Your task to perform on an android device: Open calendar and show me the first week of next month Image 0: 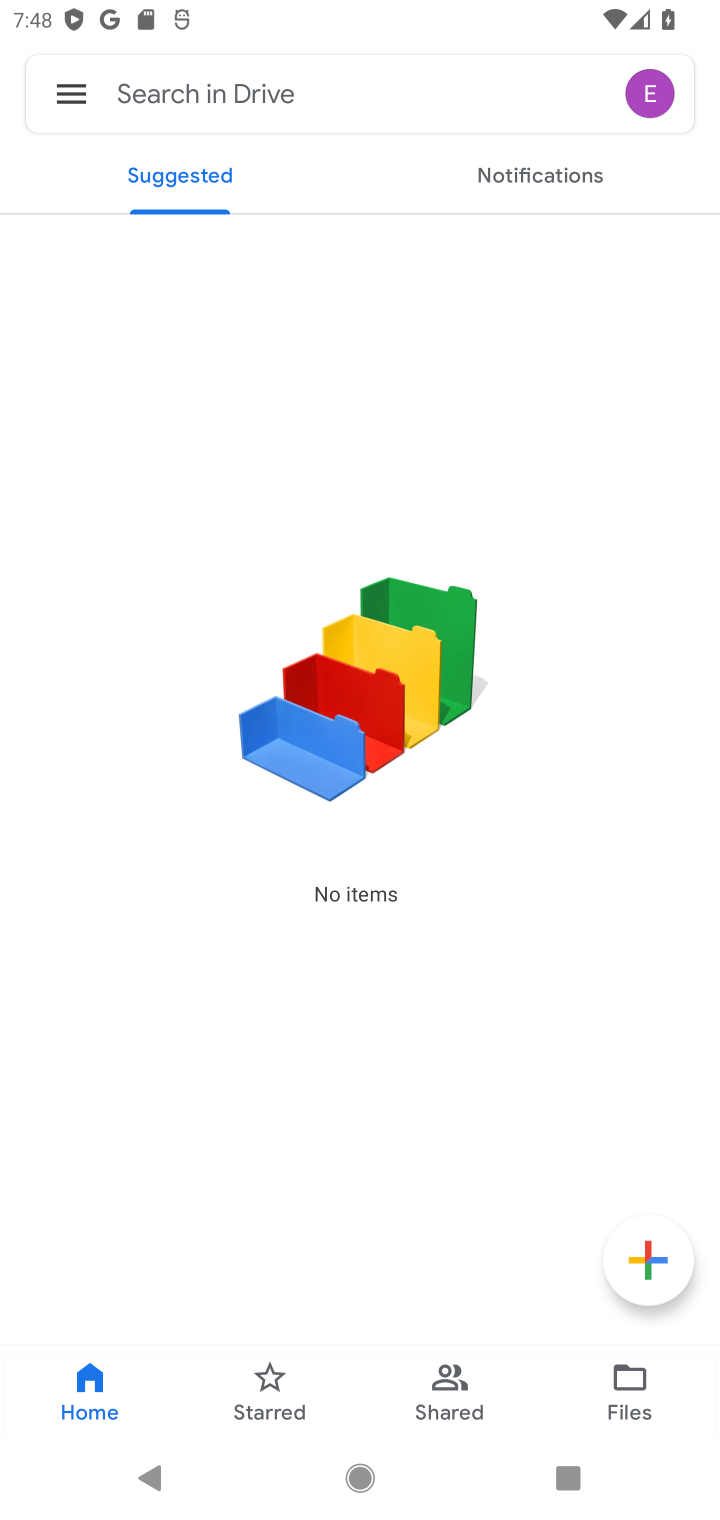
Step 0: press home button
Your task to perform on an android device: Open calendar and show me the first week of next month Image 1: 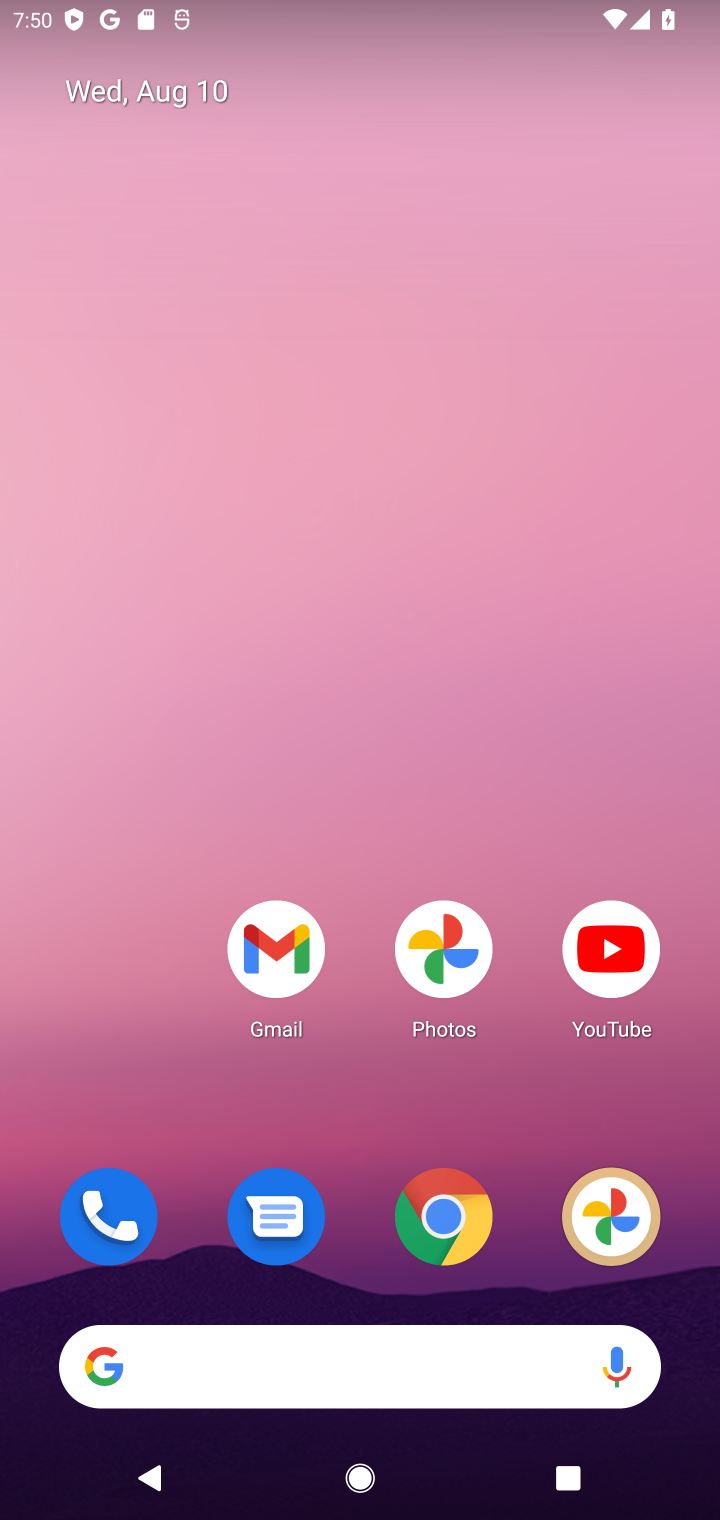
Step 1: drag from (236, 613) to (490, 101)
Your task to perform on an android device: Open calendar and show me the first week of next month Image 2: 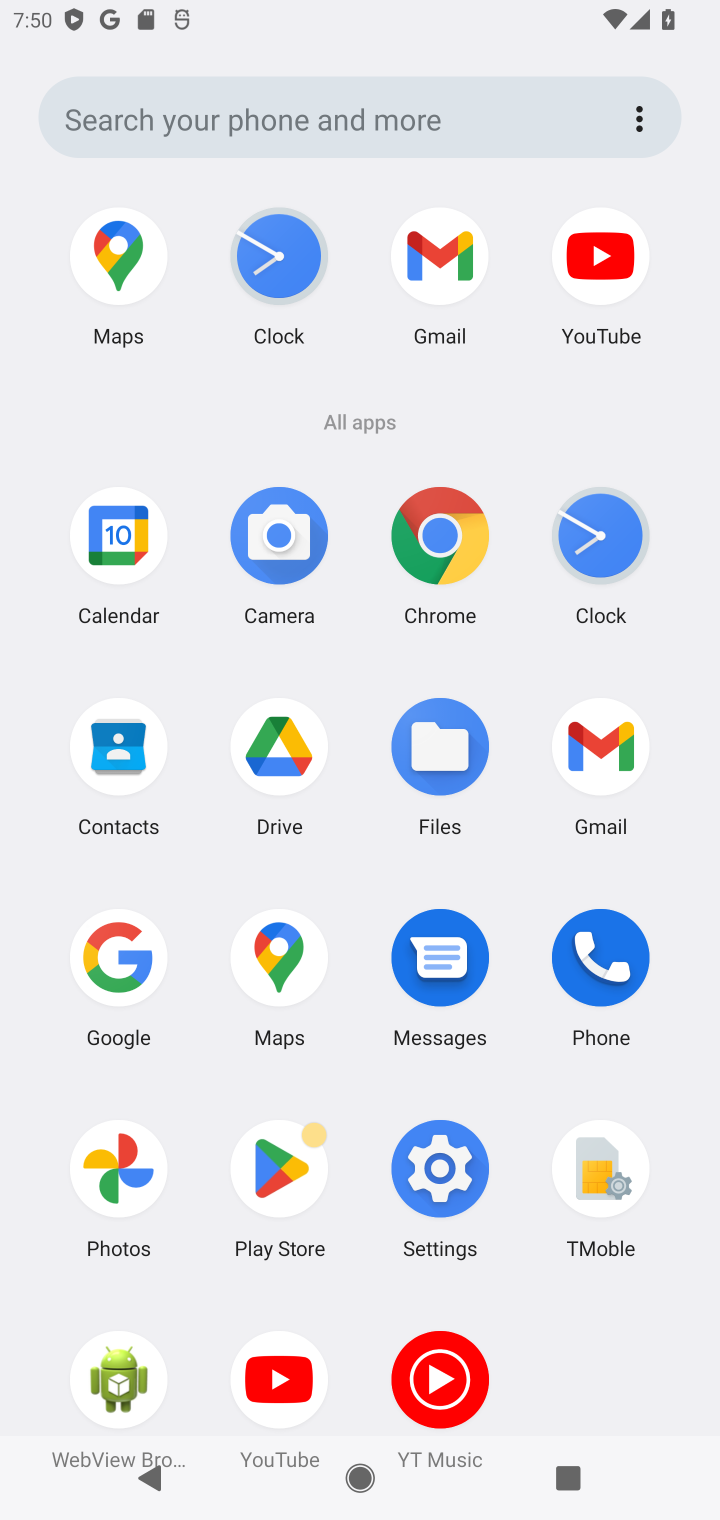
Step 2: click (125, 534)
Your task to perform on an android device: Open calendar and show me the first week of next month Image 3: 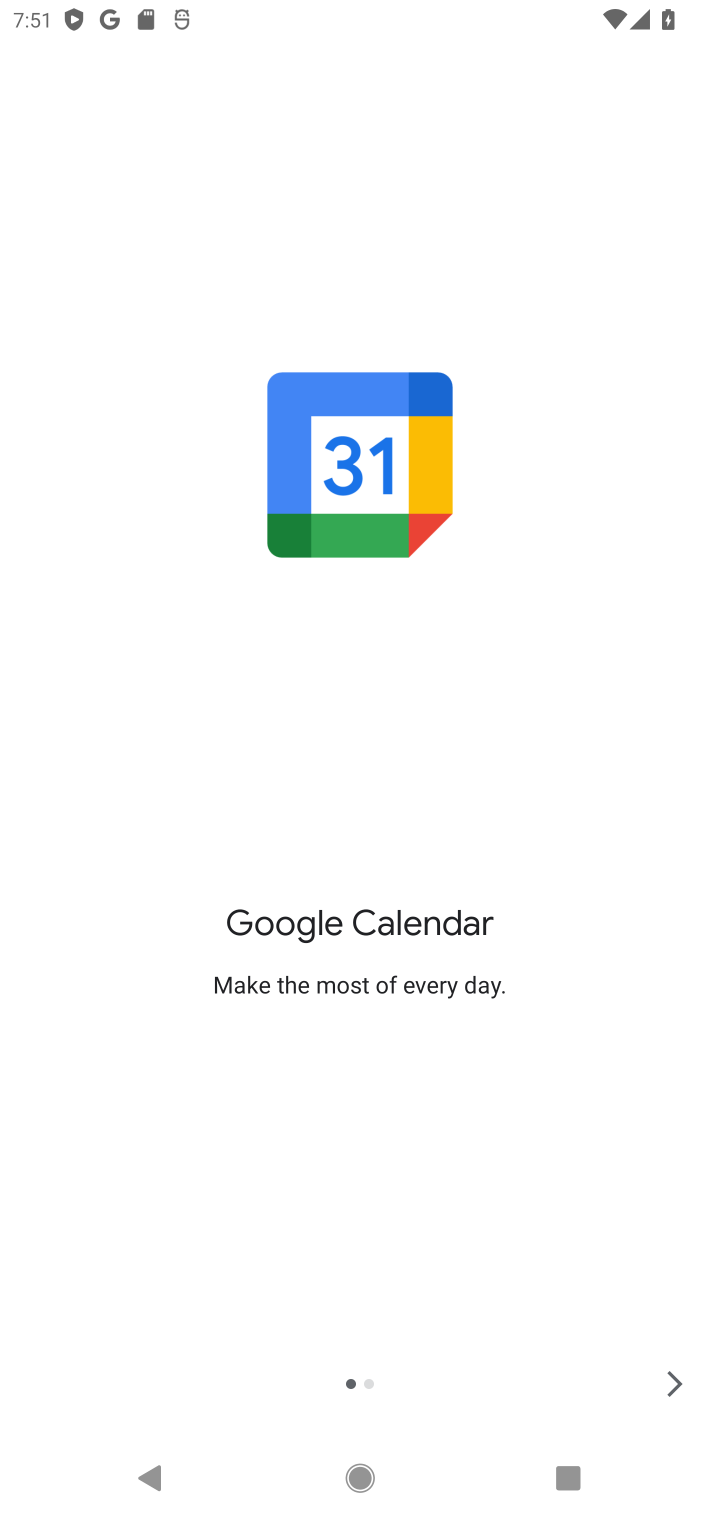
Step 3: click (679, 1396)
Your task to perform on an android device: Open calendar and show me the first week of next month Image 4: 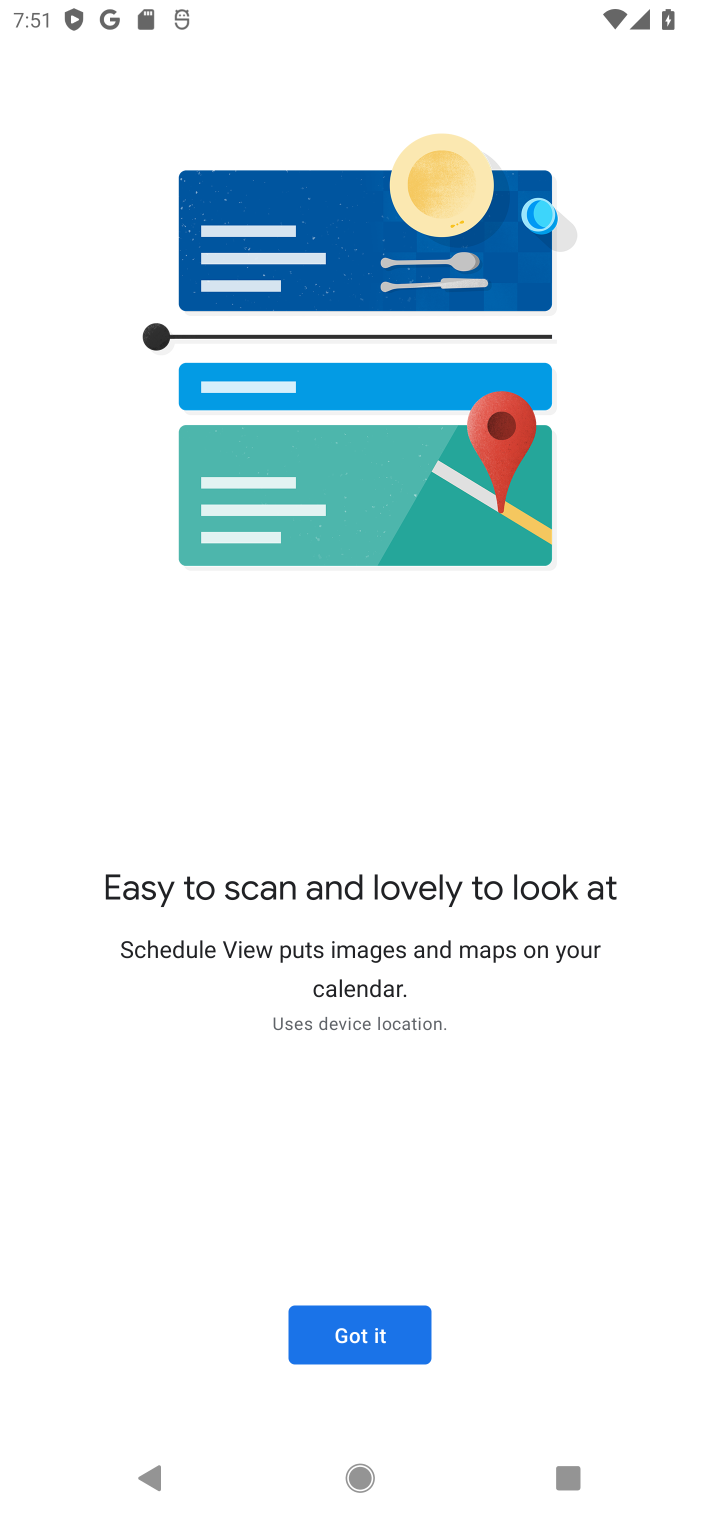
Step 4: click (368, 1335)
Your task to perform on an android device: Open calendar and show me the first week of next month Image 5: 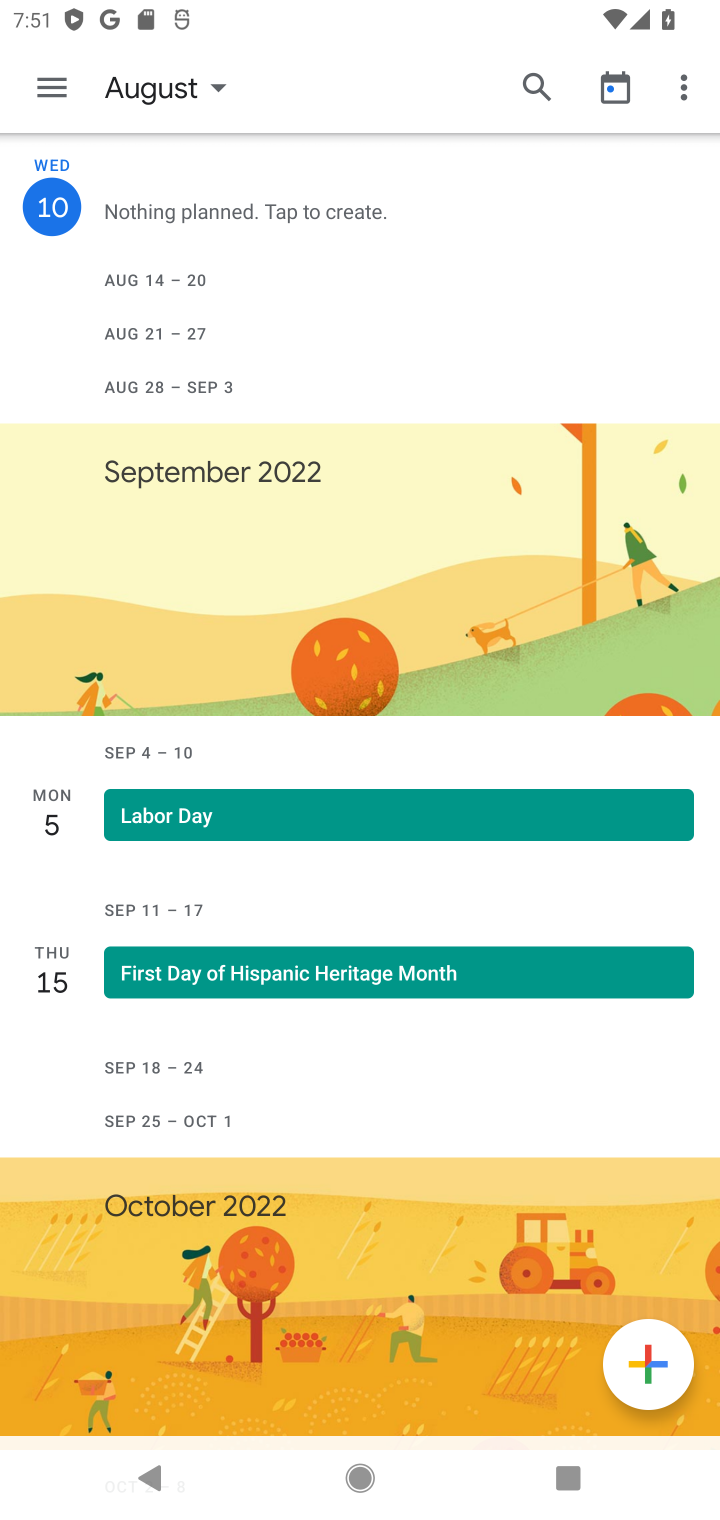
Step 5: click (189, 74)
Your task to perform on an android device: Open calendar and show me the first week of next month Image 6: 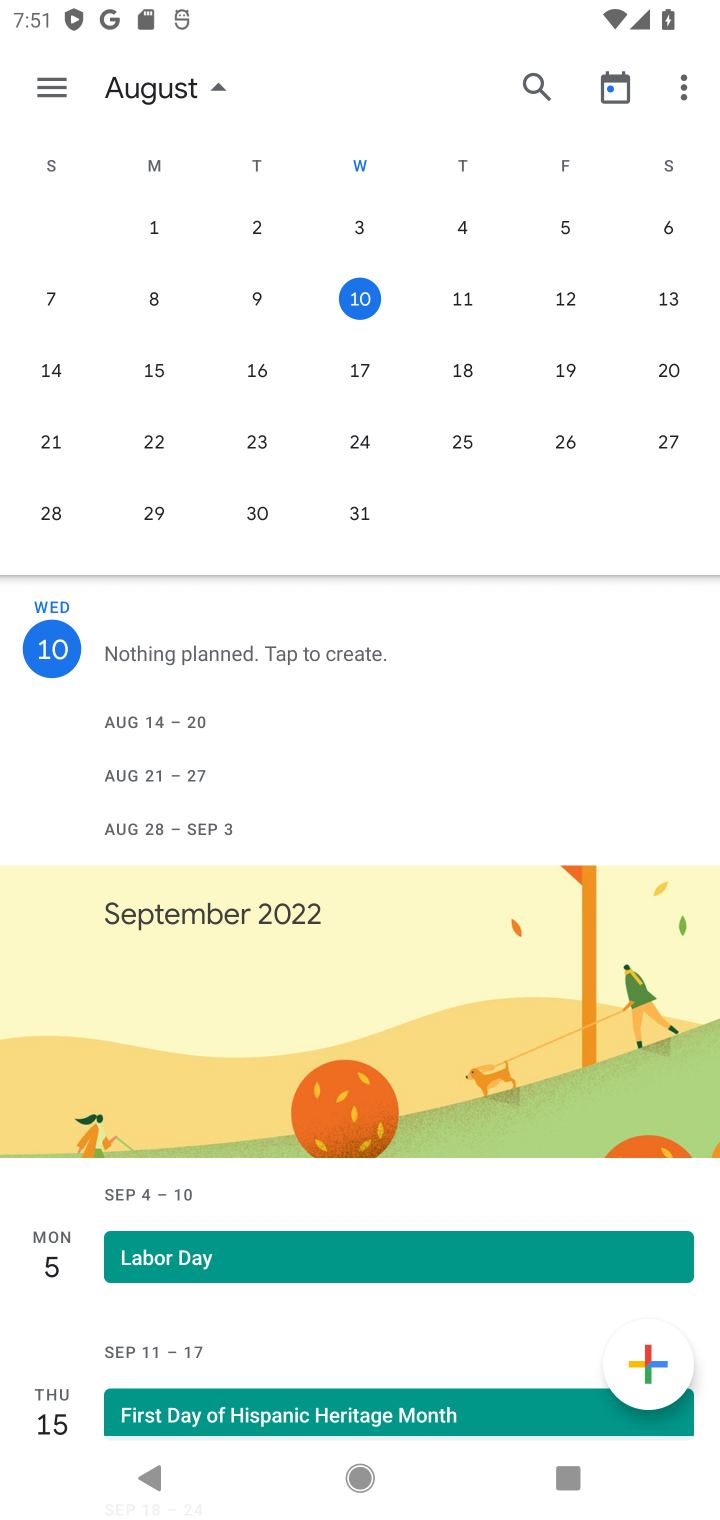
Step 6: drag from (708, 373) to (13, 272)
Your task to perform on an android device: Open calendar and show me the first week of next month Image 7: 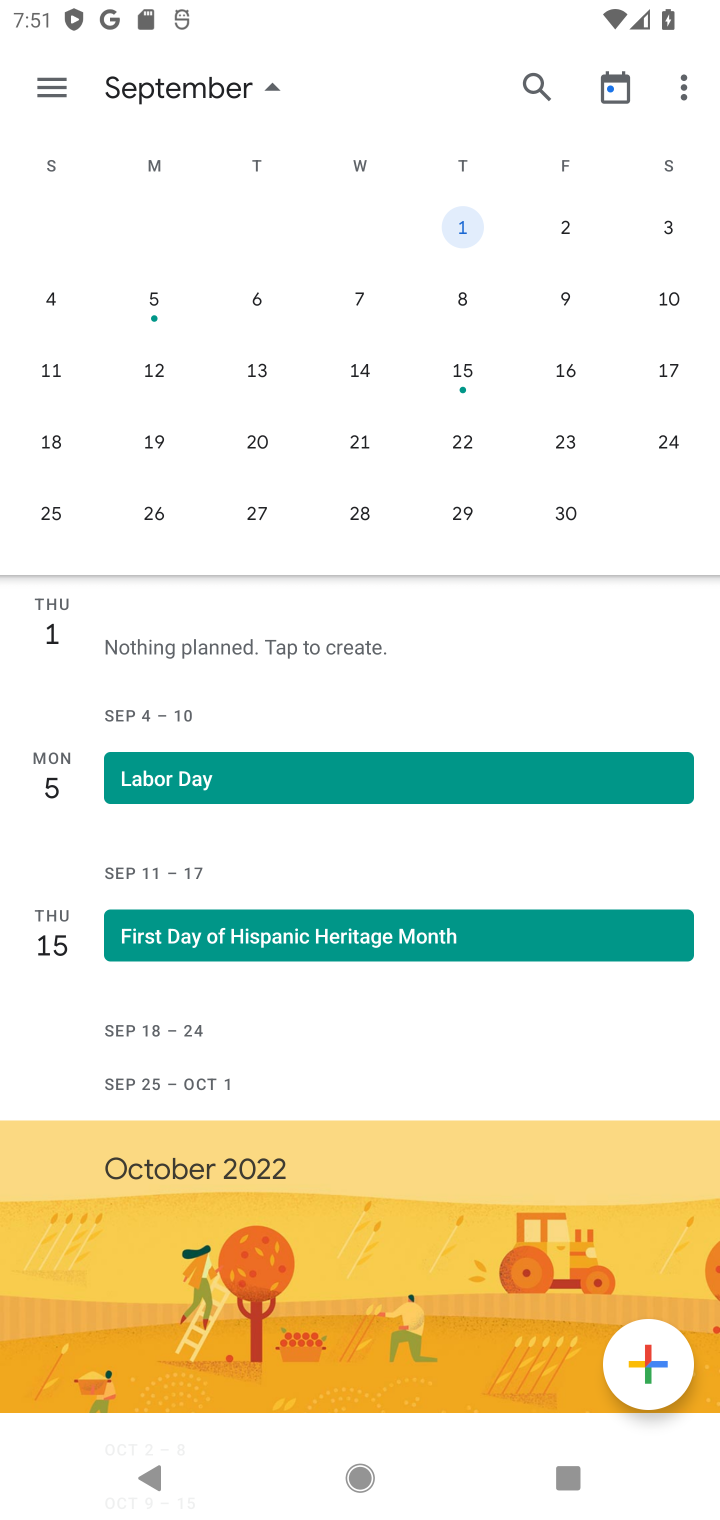
Step 7: click (568, 237)
Your task to perform on an android device: Open calendar and show me the first week of next month Image 8: 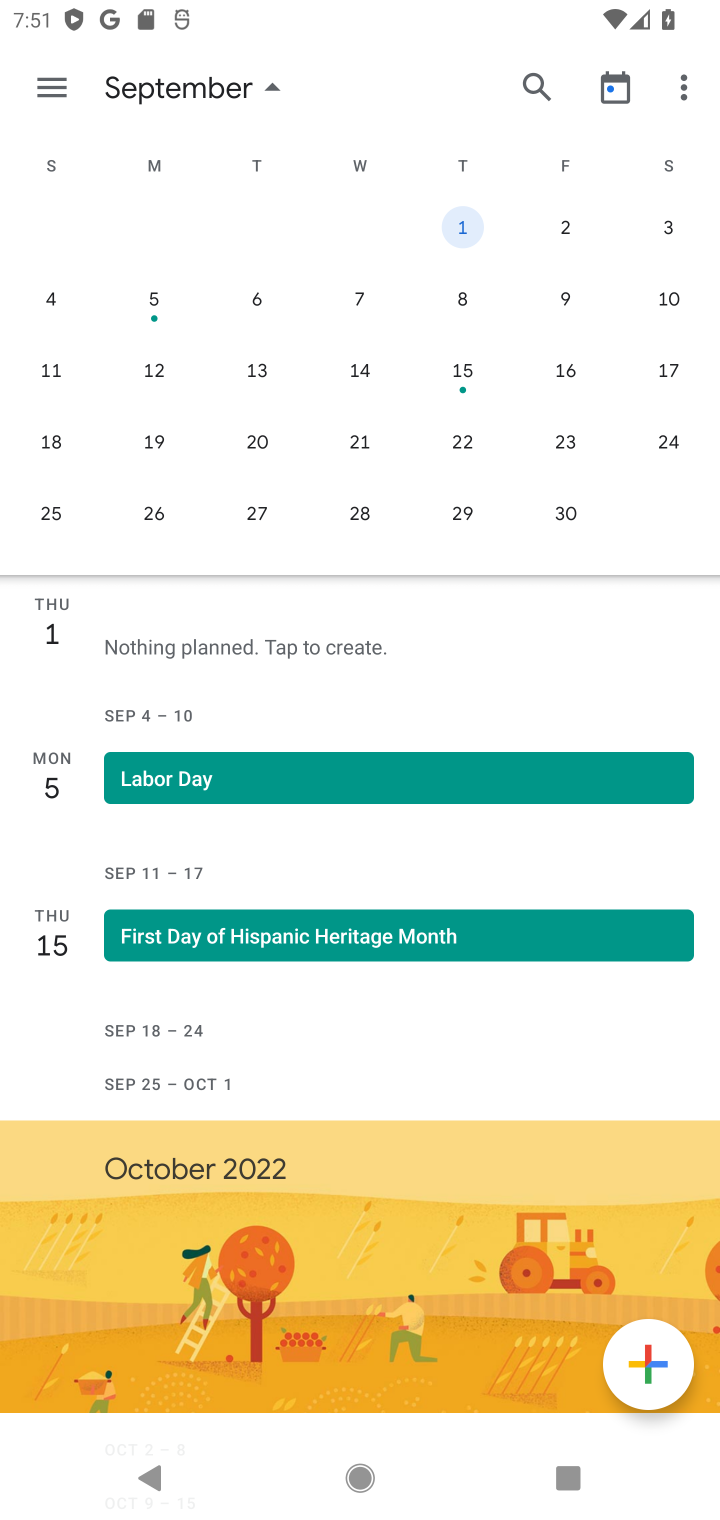
Step 8: task complete